Your task to perform on an android device: Open eBay Image 0: 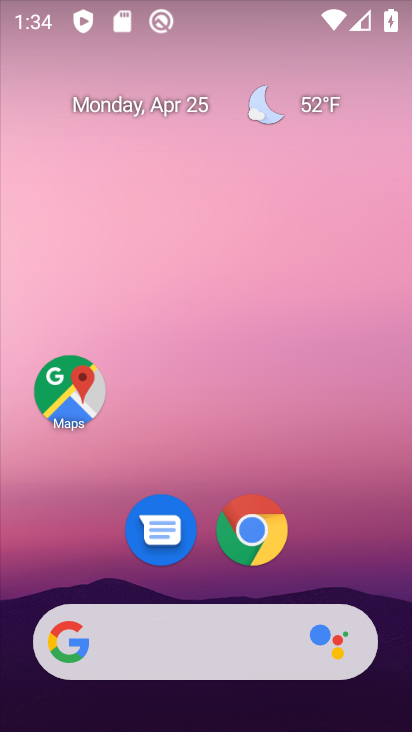
Step 0: drag from (363, 561) to (326, 75)
Your task to perform on an android device: Open eBay Image 1: 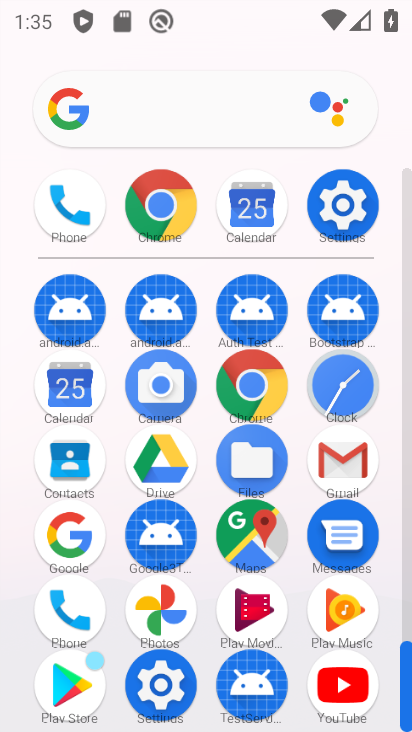
Step 1: click (168, 219)
Your task to perform on an android device: Open eBay Image 2: 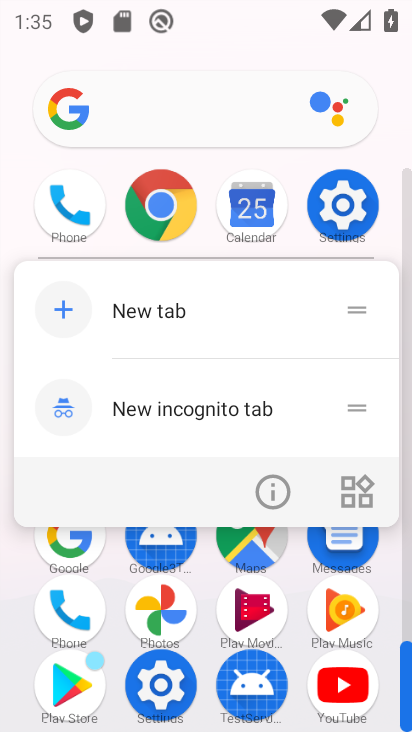
Step 2: click (176, 215)
Your task to perform on an android device: Open eBay Image 3: 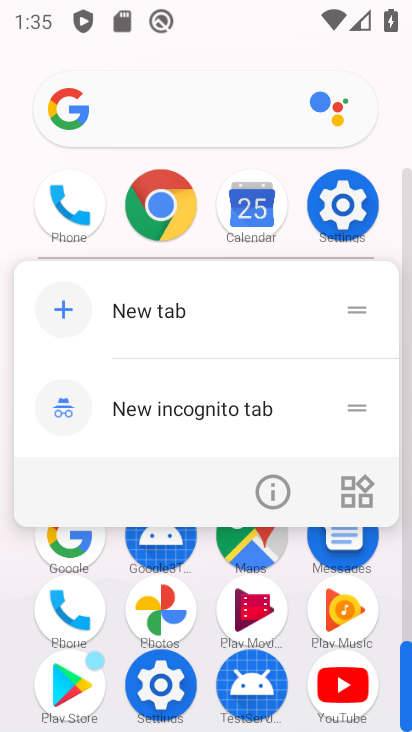
Step 3: drag from (389, 181) to (411, 71)
Your task to perform on an android device: Open eBay Image 4: 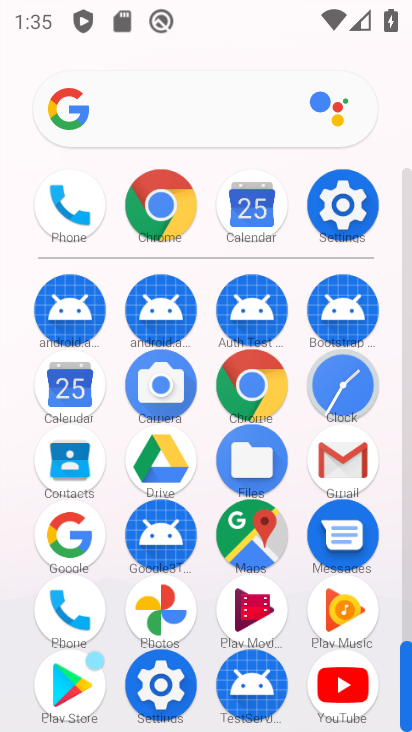
Step 4: click (278, 360)
Your task to perform on an android device: Open eBay Image 5: 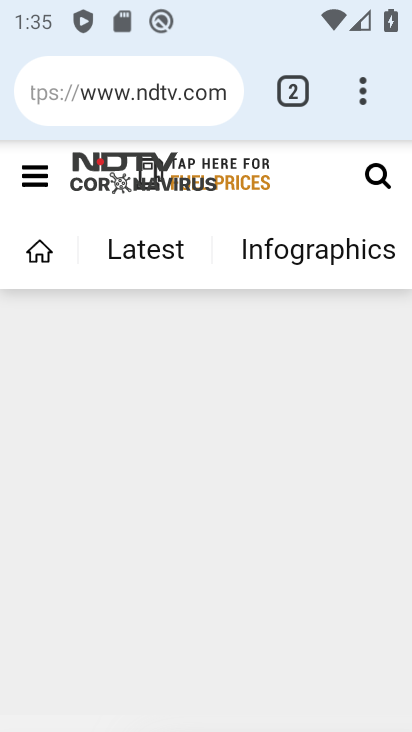
Step 5: click (197, 95)
Your task to perform on an android device: Open eBay Image 6: 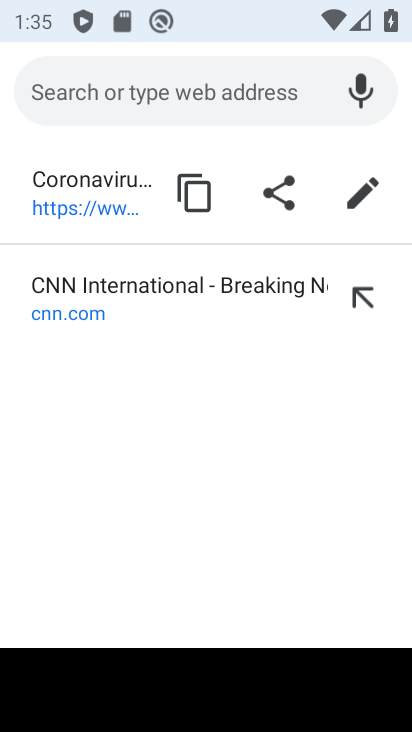
Step 6: type "ebay "
Your task to perform on an android device: Open eBay Image 7: 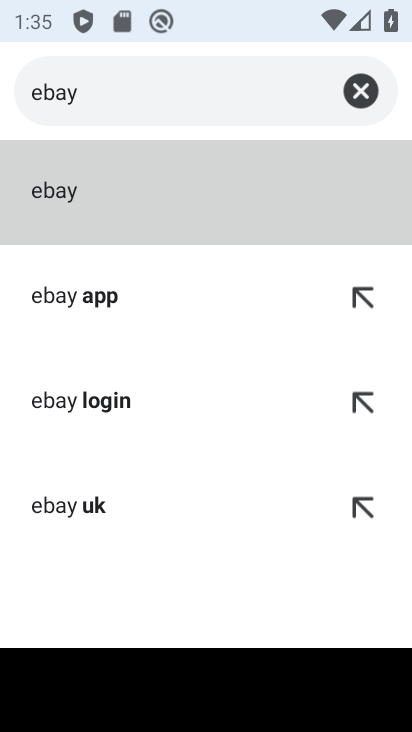
Step 7: click (59, 181)
Your task to perform on an android device: Open eBay Image 8: 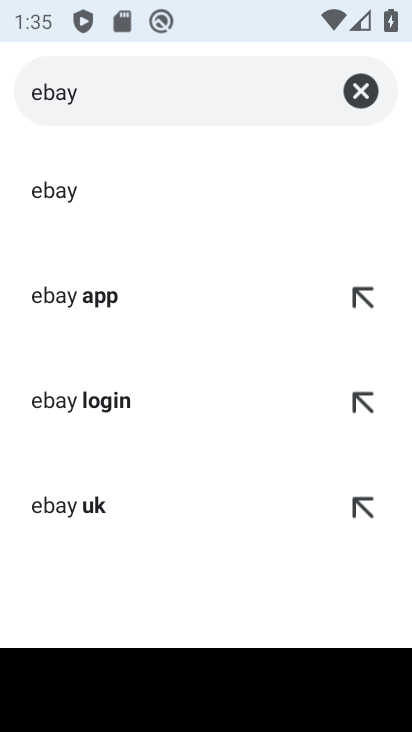
Step 8: click (59, 192)
Your task to perform on an android device: Open eBay Image 9: 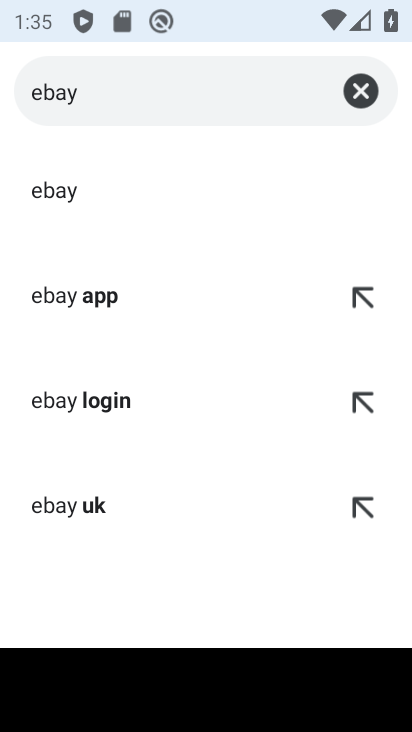
Step 9: click (60, 191)
Your task to perform on an android device: Open eBay Image 10: 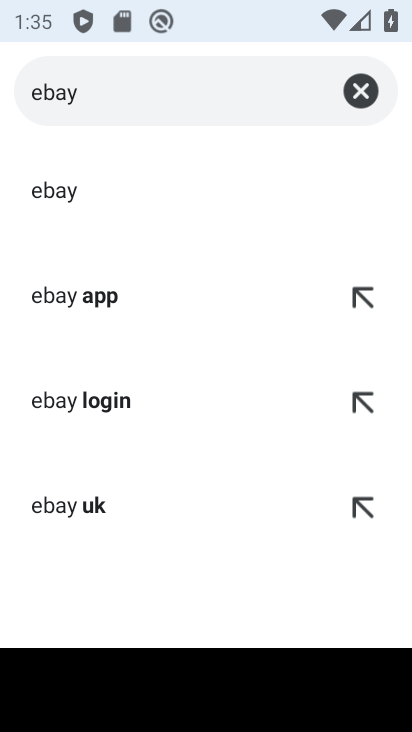
Step 10: click (60, 191)
Your task to perform on an android device: Open eBay Image 11: 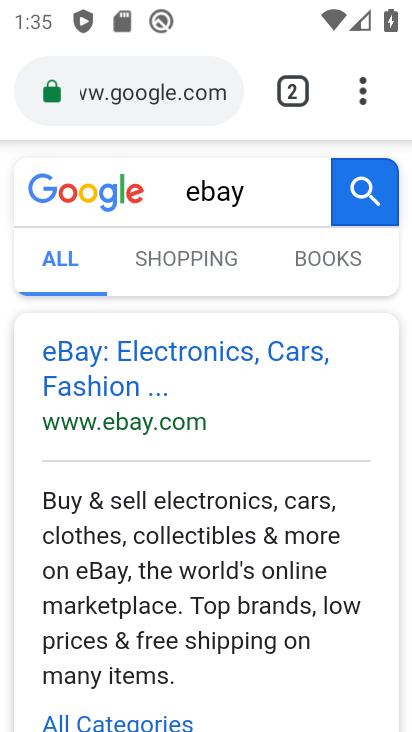
Step 11: click (71, 376)
Your task to perform on an android device: Open eBay Image 12: 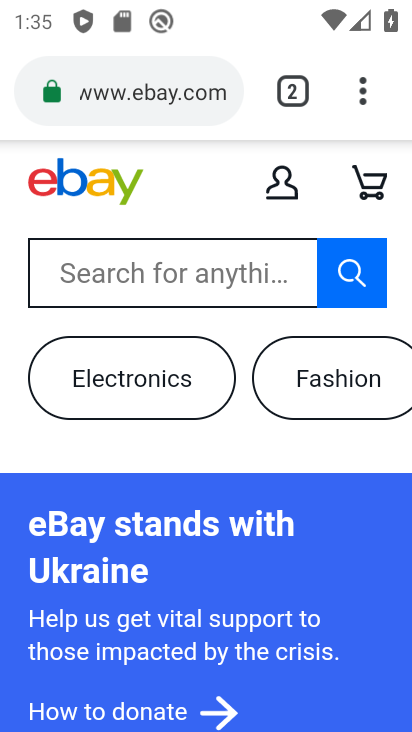
Step 12: task complete